Your task to perform on an android device: toggle improve location accuracy Image 0: 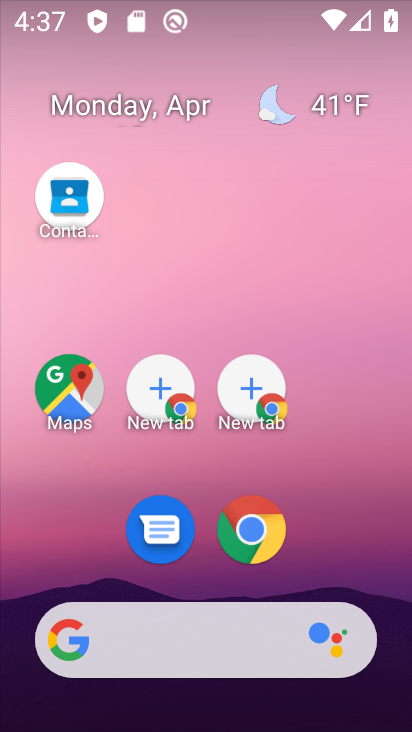
Step 0: drag from (160, 499) to (224, 51)
Your task to perform on an android device: toggle improve location accuracy Image 1: 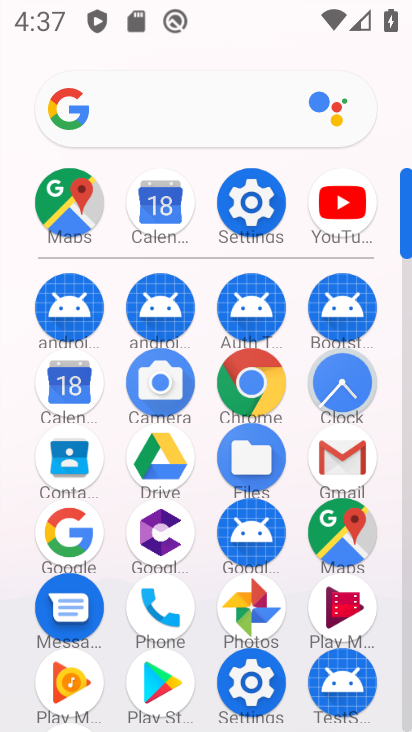
Step 1: click (254, 207)
Your task to perform on an android device: toggle improve location accuracy Image 2: 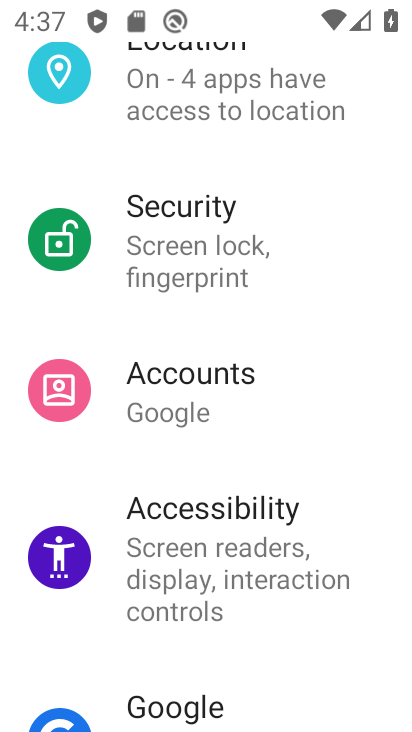
Step 2: drag from (200, 620) to (290, 1)
Your task to perform on an android device: toggle improve location accuracy Image 3: 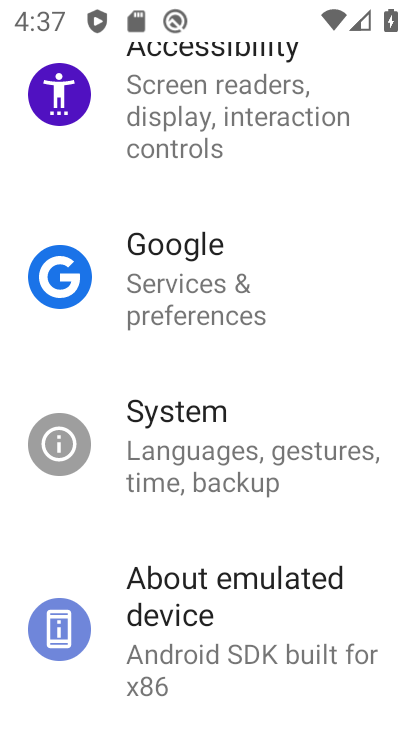
Step 3: drag from (166, 682) to (231, 68)
Your task to perform on an android device: toggle improve location accuracy Image 4: 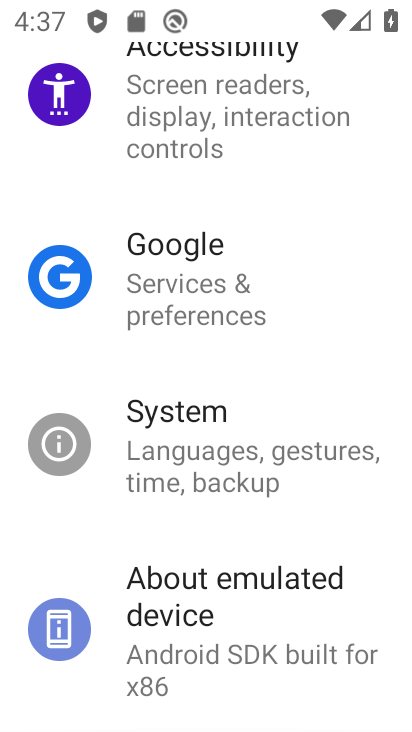
Step 4: drag from (223, 206) to (178, 722)
Your task to perform on an android device: toggle improve location accuracy Image 5: 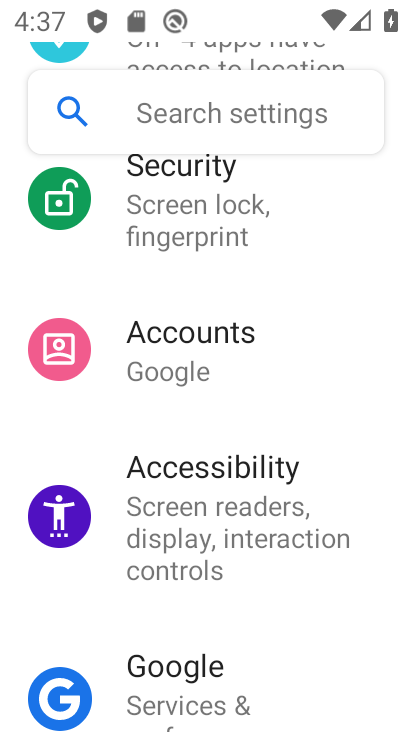
Step 5: drag from (213, 210) to (188, 730)
Your task to perform on an android device: toggle improve location accuracy Image 6: 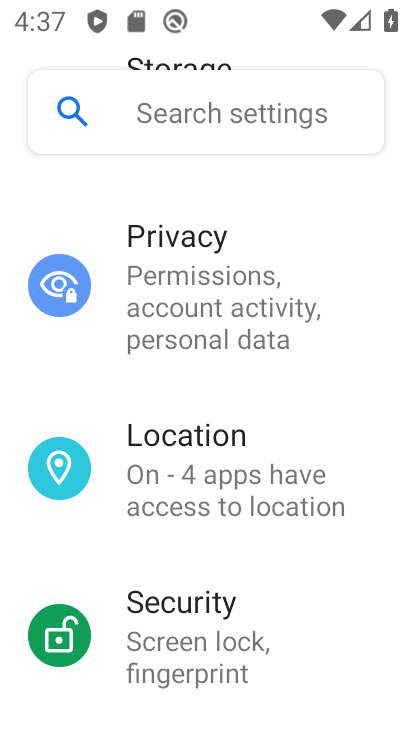
Step 6: click (190, 464)
Your task to perform on an android device: toggle improve location accuracy Image 7: 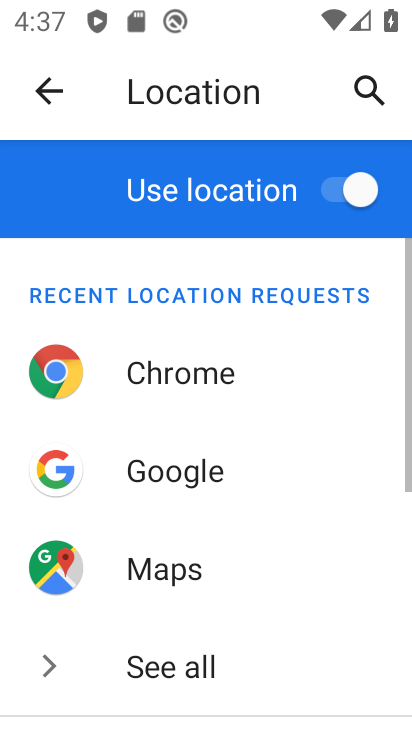
Step 7: drag from (179, 672) to (285, 112)
Your task to perform on an android device: toggle improve location accuracy Image 8: 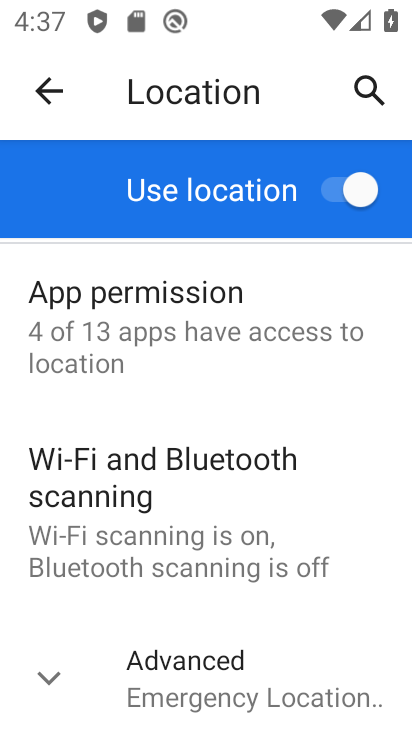
Step 8: click (209, 691)
Your task to perform on an android device: toggle improve location accuracy Image 9: 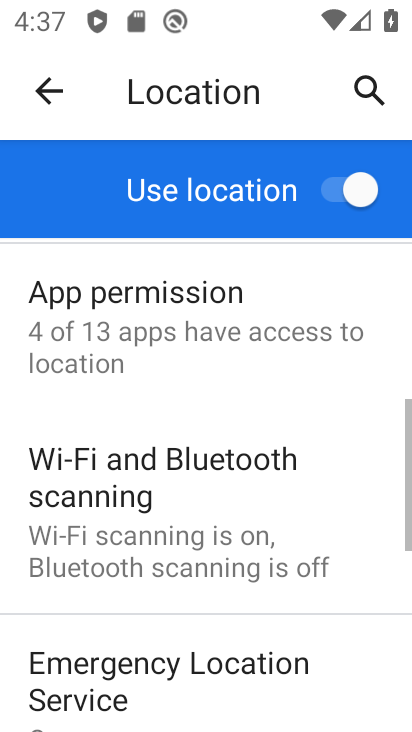
Step 9: drag from (225, 641) to (276, 109)
Your task to perform on an android device: toggle improve location accuracy Image 10: 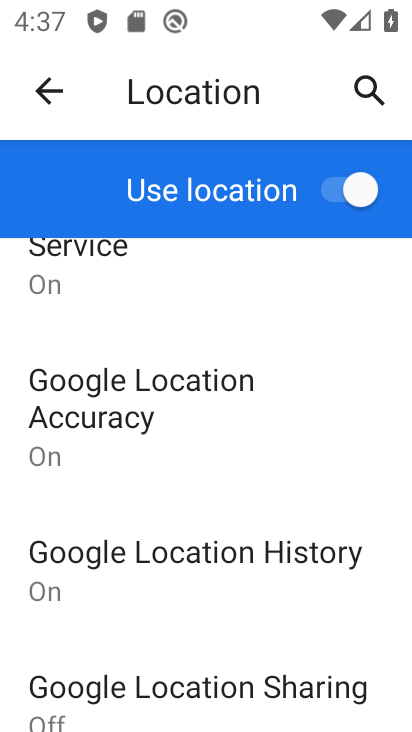
Step 10: click (110, 412)
Your task to perform on an android device: toggle improve location accuracy Image 11: 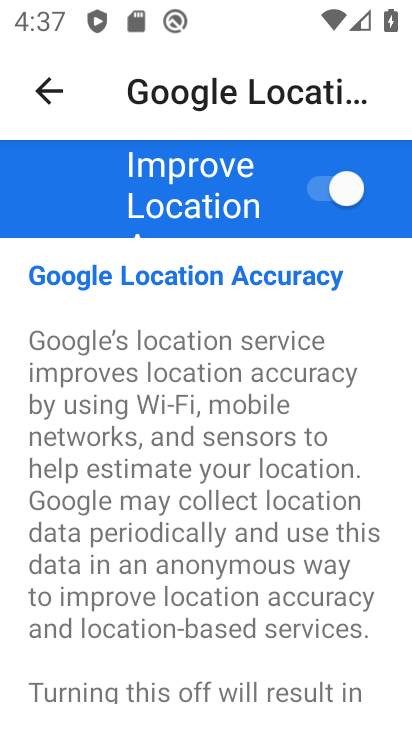
Step 11: click (331, 184)
Your task to perform on an android device: toggle improve location accuracy Image 12: 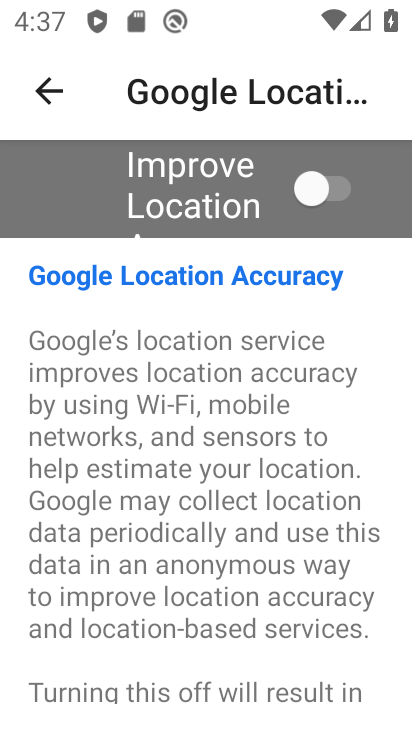
Step 12: task complete